Your task to perform on an android device: Empty the shopping cart on costco. Search for "rayovac triple a" on costco, select the first entry, add it to the cart, then select checkout. Image 0: 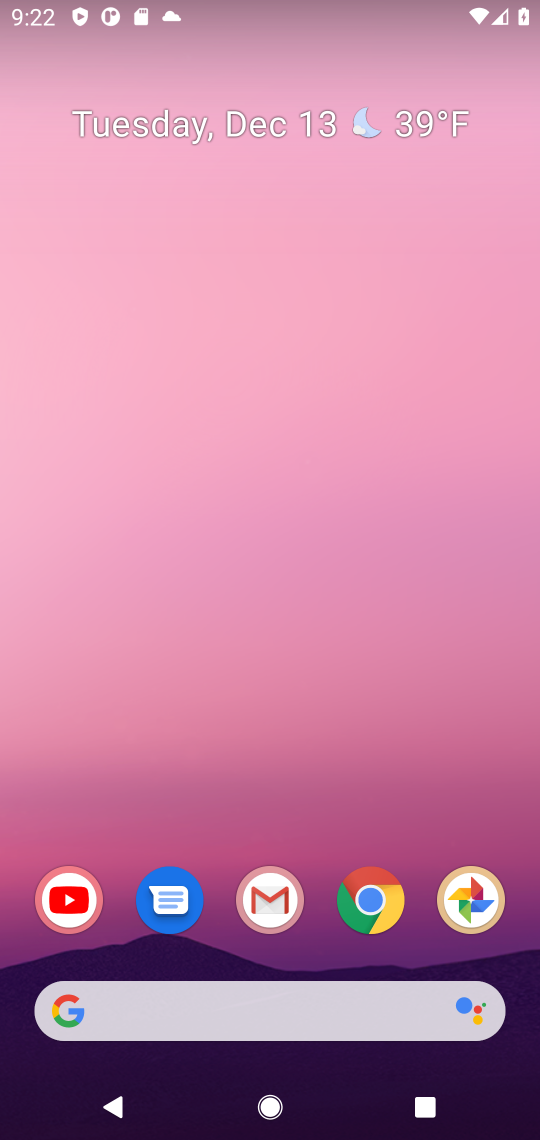
Step 0: click (374, 908)
Your task to perform on an android device: Empty the shopping cart on costco. Search for "rayovac triple a" on costco, select the first entry, add it to the cart, then select checkout. Image 1: 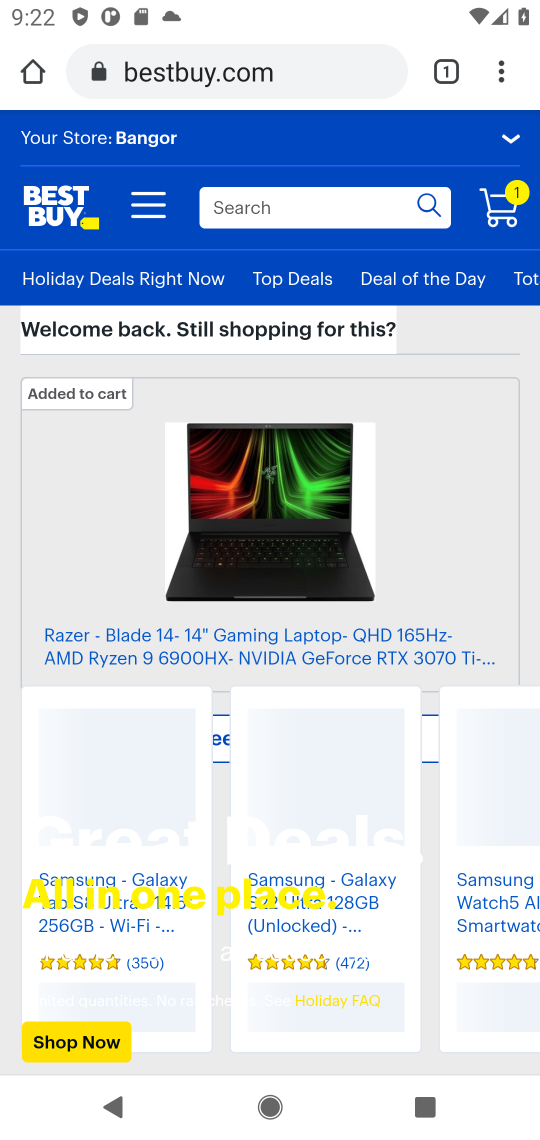
Step 1: click (241, 70)
Your task to perform on an android device: Empty the shopping cart on costco. Search for "rayovac triple a" on costco, select the first entry, add it to the cart, then select checkout. Image 2: 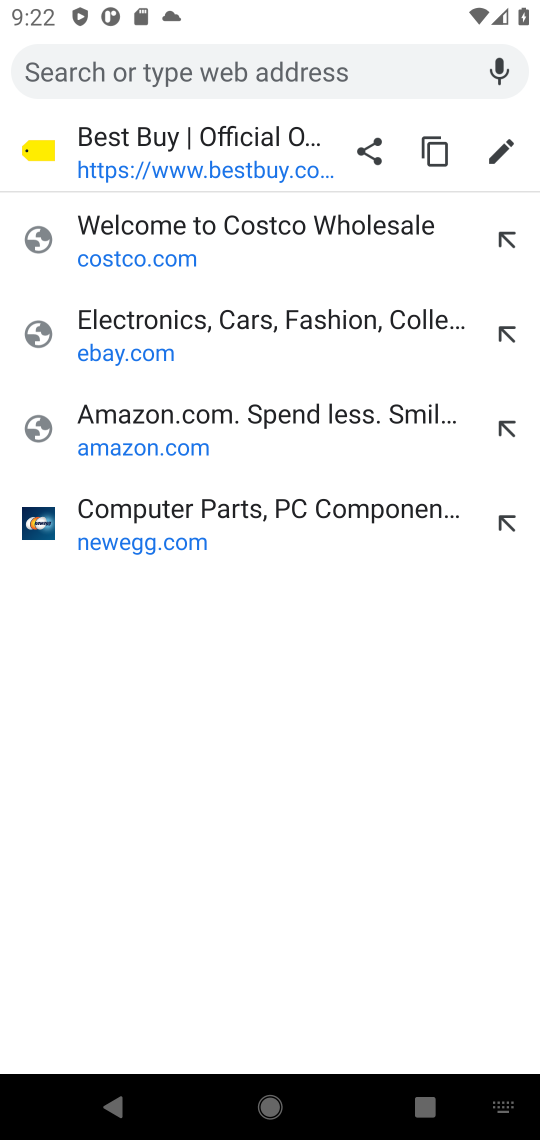
Step 2: click (208, 249)
Your task to perform on an android device: Empty the shopping cart on costco. Search for "rayovac triple a" on costco, select the first entry, add it to the cart, then select checkout. Image 3: 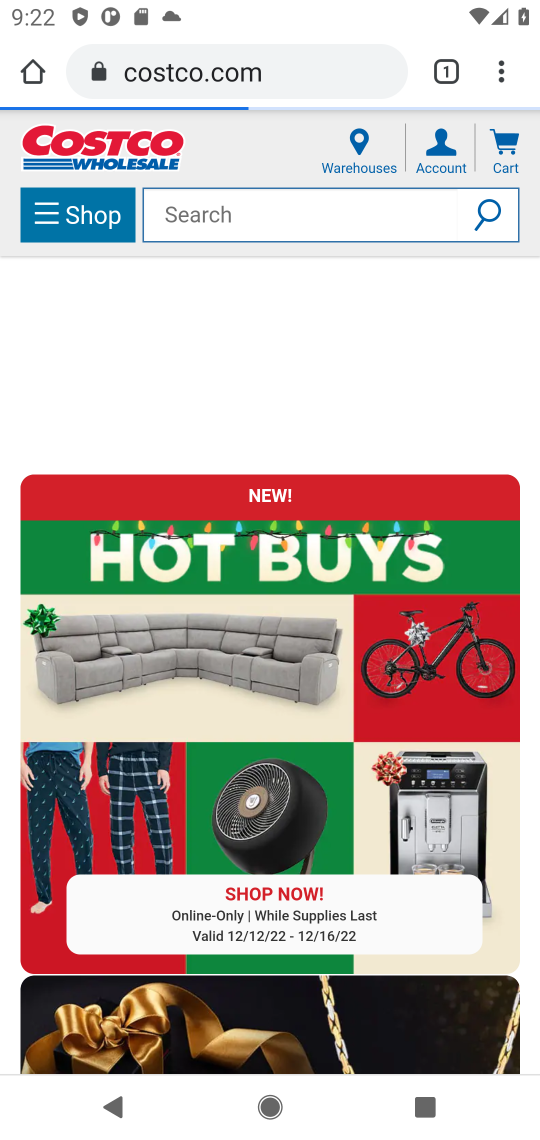
Step 3: click (289, 223)
Your task to perform on an android device: Empty the shopping cart on costco. Search for "rayovac triple a" on costco, select the first entry, add it to the cart, then select checkout. Image 4: 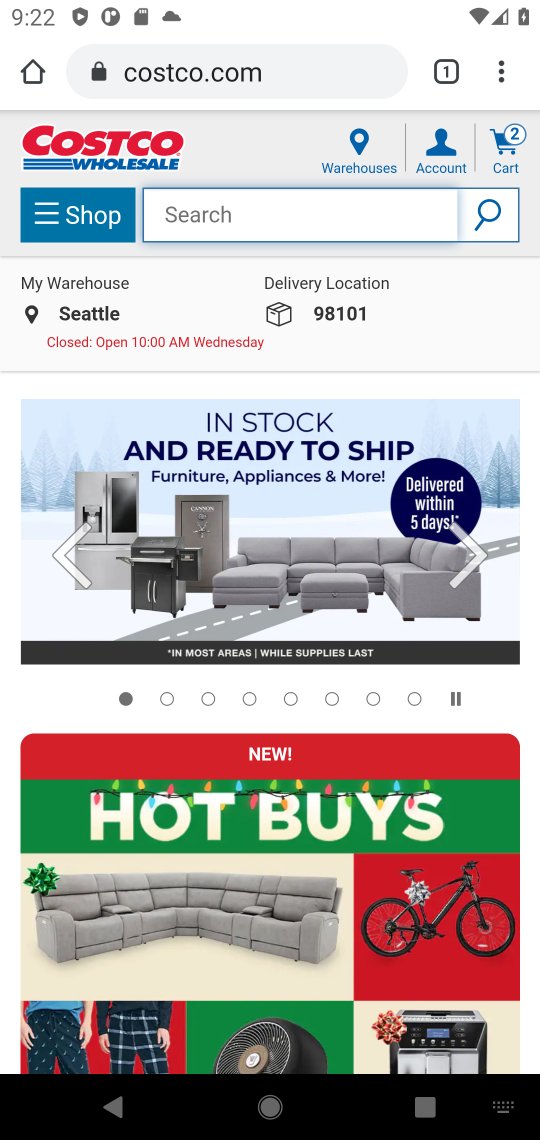
Step 4: click (500, 149)
Your task to perform on an android device: Empty the shopping cart on costco. Search for "rayovac triple a" on costco, select the first entry, add it to the cart, then select checkout. Image 5: 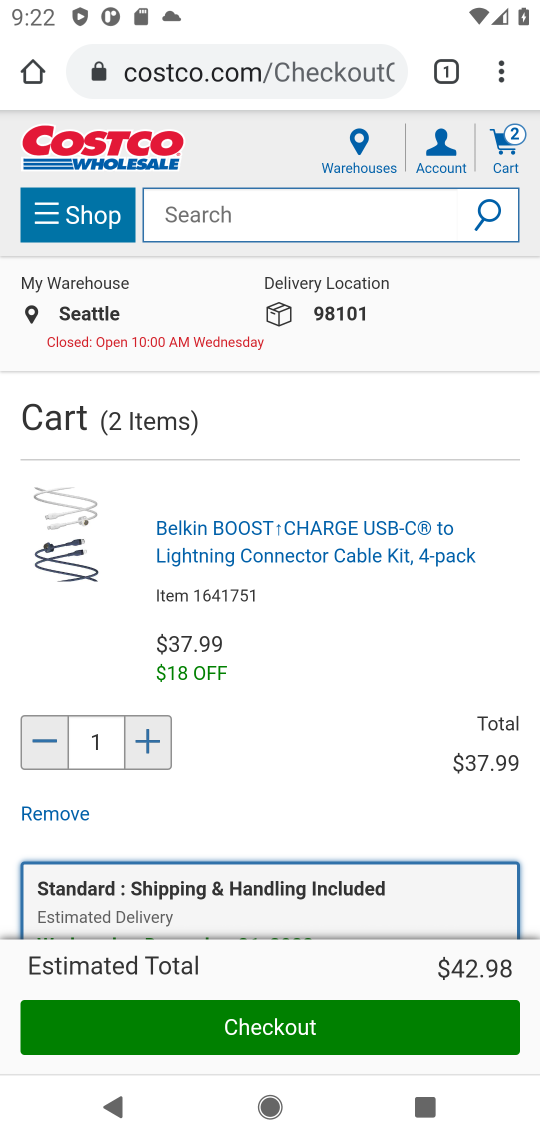
Step 5: click (48, 815)
Your task to perform on an android device: Empty the shopping cart on costco. Search for "rayovac triple a" on costco, select the first entry, add it to the cart, then select checkout. Image 6: 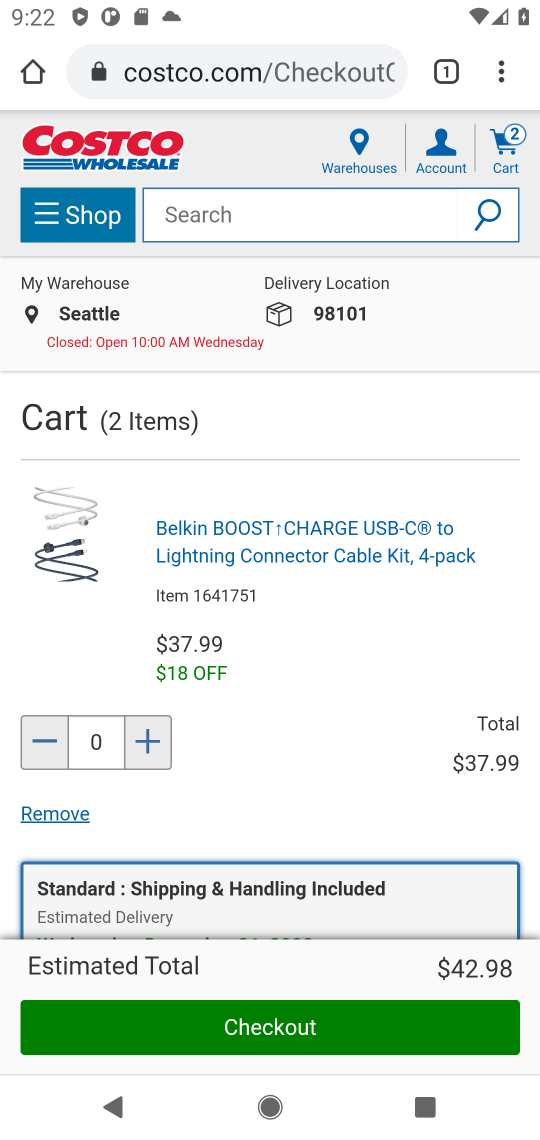
Step 6: click (48, 815)
Your task to perform on an android device: Empty the shopping cart on costco. Search for "rayovac triple a" on costco, select the first entry, add it to the cart, then select checkout. Image 7: 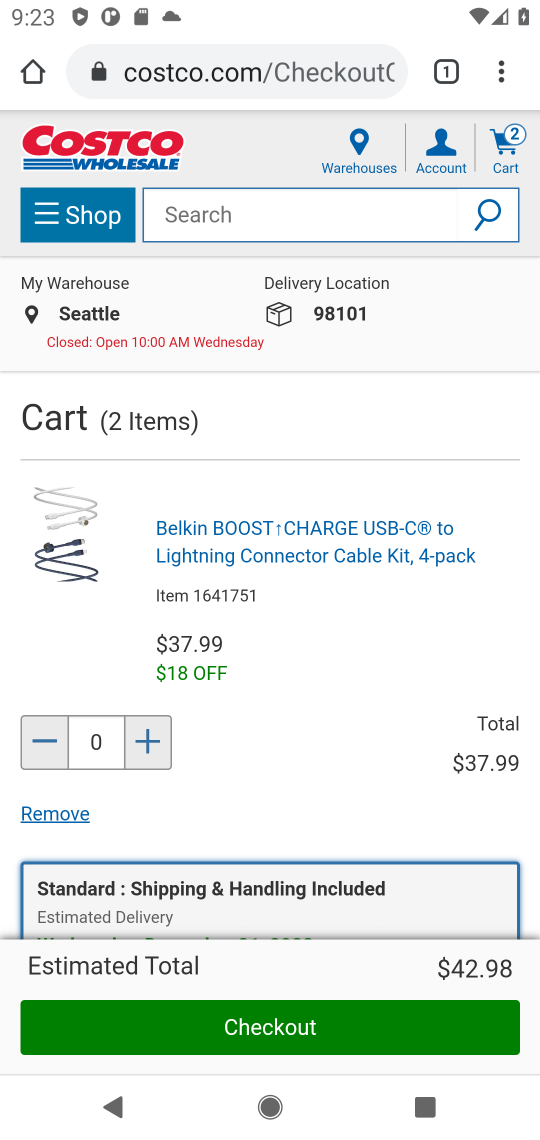
Step 7: task complete